Your task to perform on an android device: Open Google Image 0: 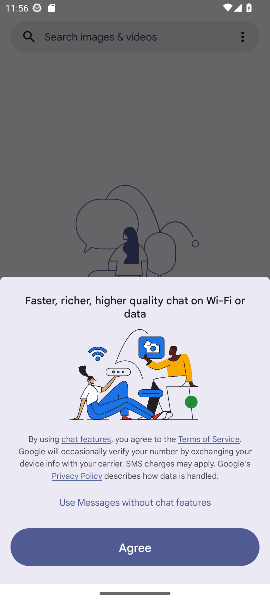
Step 0: press home button
Your task to perform on an android device: Open Google Image 1: 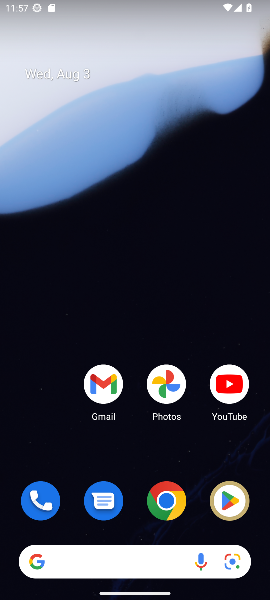
Step 1: drag from (164, 458) to (123, 259)
Your task to perform on an android device: Open Google Image 2: 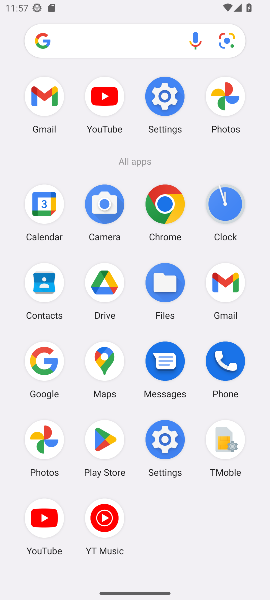
Step 2: click (35, 368)
Your task to perform on an android device: Open Google Image 3: 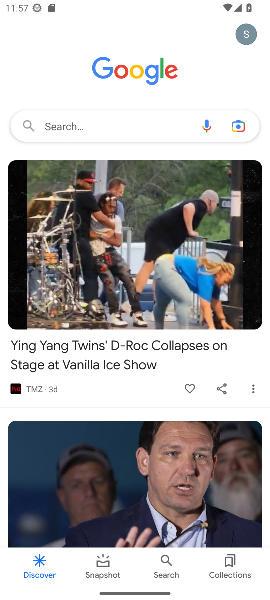
Step 3: task complete